Your task to perform on an android device: Go to Google Image 0: 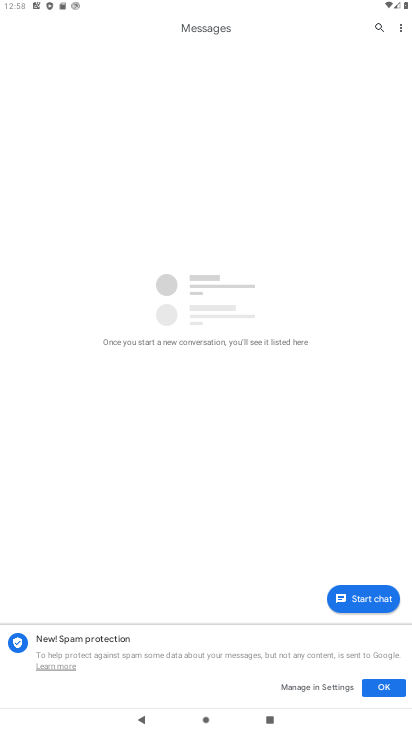
Step 0: press home button
Your task to perform on an android device: Go to Google Image 1: 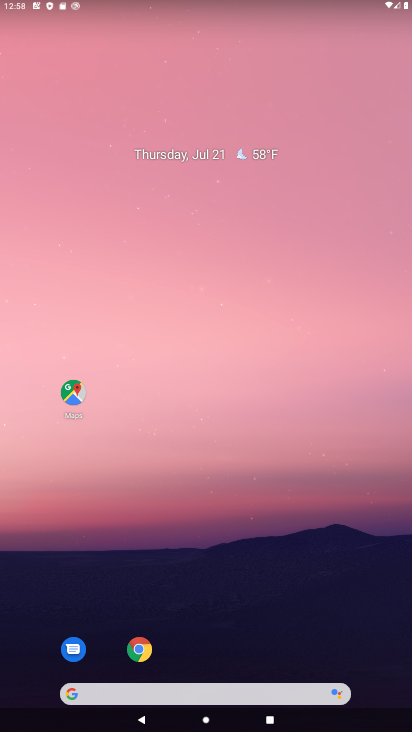
Step 1: click (274, 684)
Your task to perform on an android device: Go to Google Image 2: 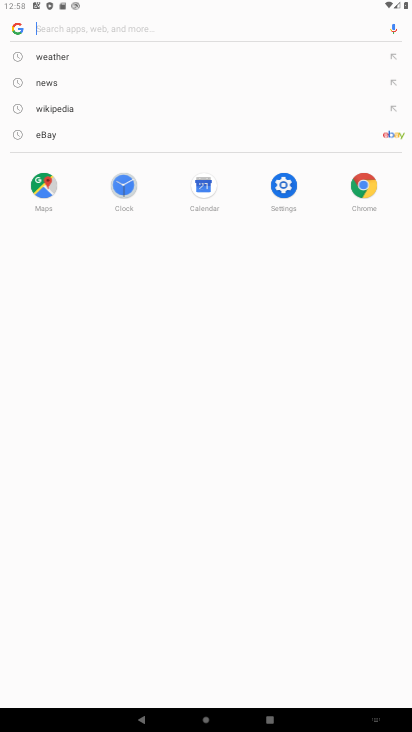
Step 2: type "google"
Your task to perform on an android device: Go to Google Image 3: 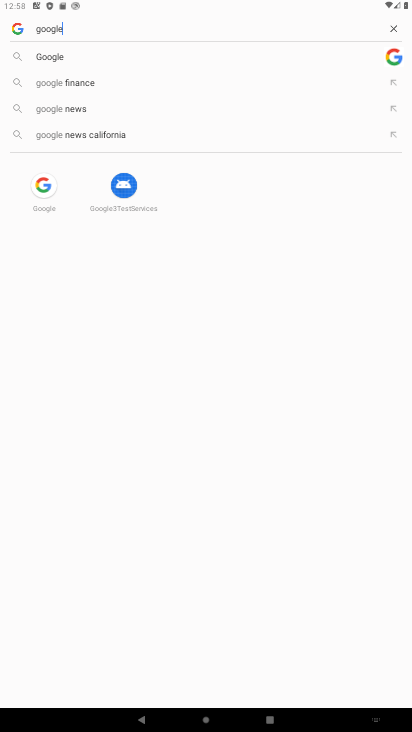
Step 3: click (138, 51)
Your task to perform on an android device: Go to Google Image 4: 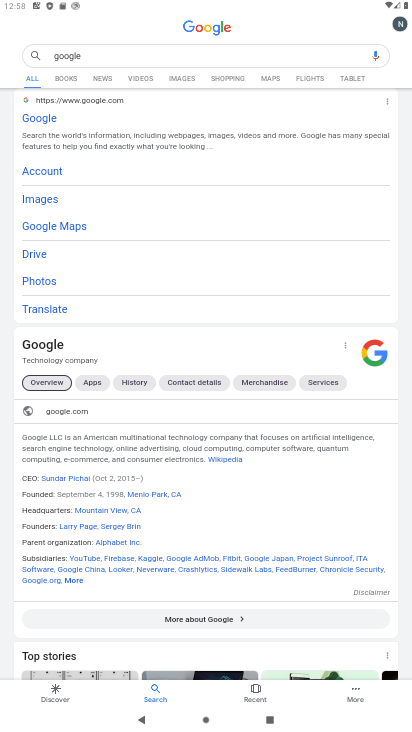
Step 4: click (39, 125)
Your task to perform on an android device: Go to Google Image 5: 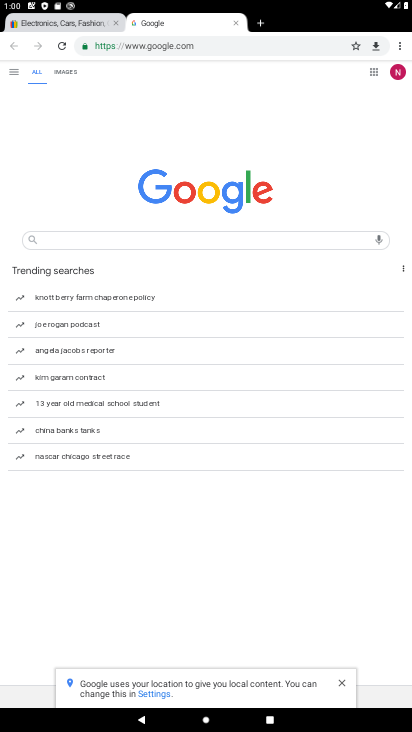
Step 5: task complete